Your task to perform on an android device: turn on the 24-hour format for clock Image 0: 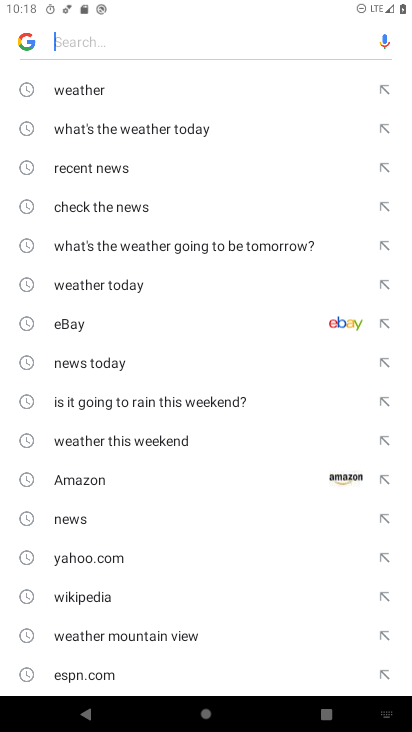
Step 0: press home button
Your task to perform on an android device: turn on the 24-hour format for clock Image 1: 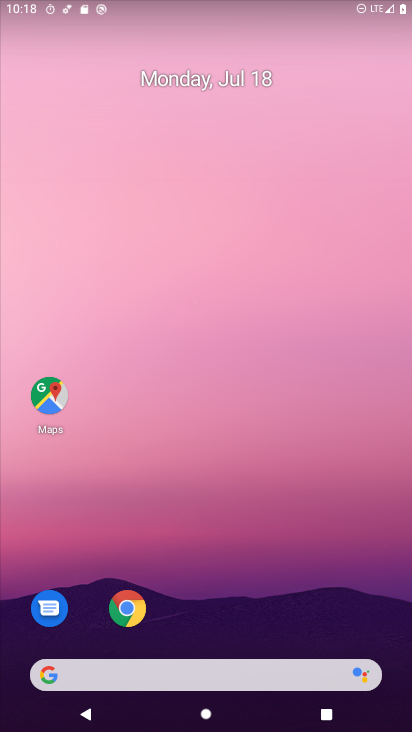
Step 1: drag from (206, 368) to (211, 227)
Your task to perform on an android device: turn on the 24-hour format for clock Image 2: 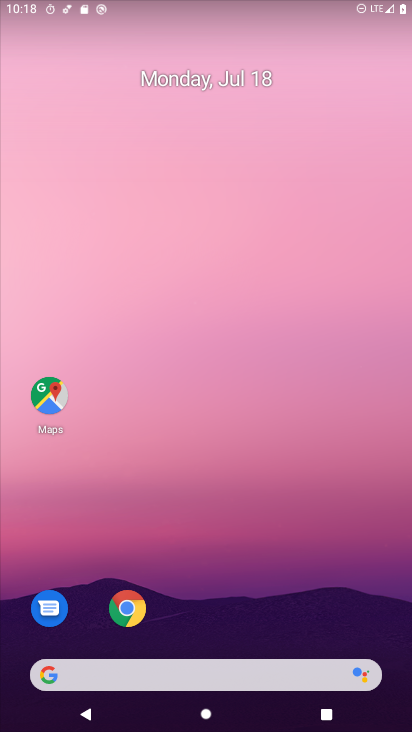
Step 2: drag from (192, 571) to (199, 205)
Your task to perform on an android device: turn on the 24-hour format for clock Image 3: 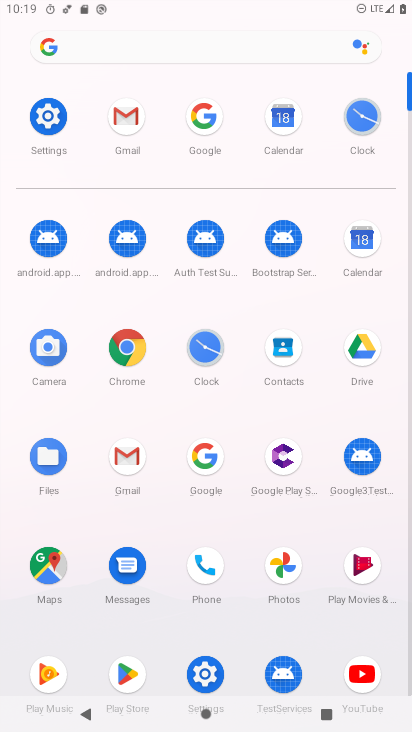
Step 3: click (206, 340)
Your task to perform on an android device: turn on the 24-hour format for clock Image 4: 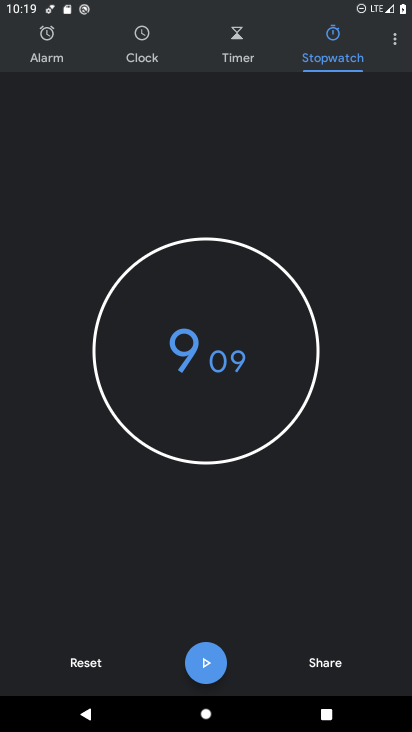
Step 4: click (395, 37)
Your task to perform on an android device: turn on the 24-hour format for clock Image 5: 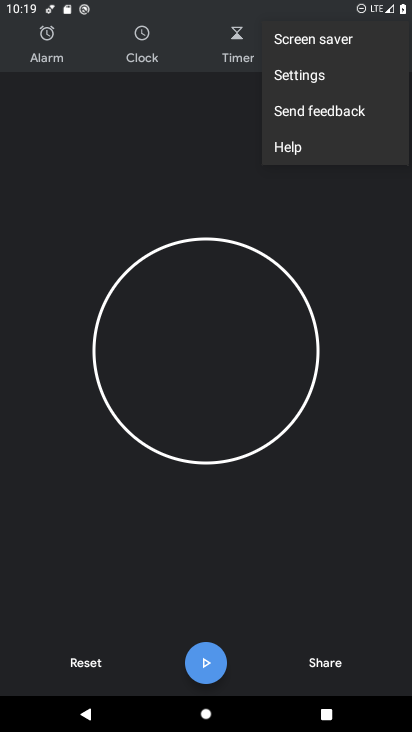
Step 5: click (327, 68)
Your task to perform on an android device: turn on the 24-hour format for clock Image 6: 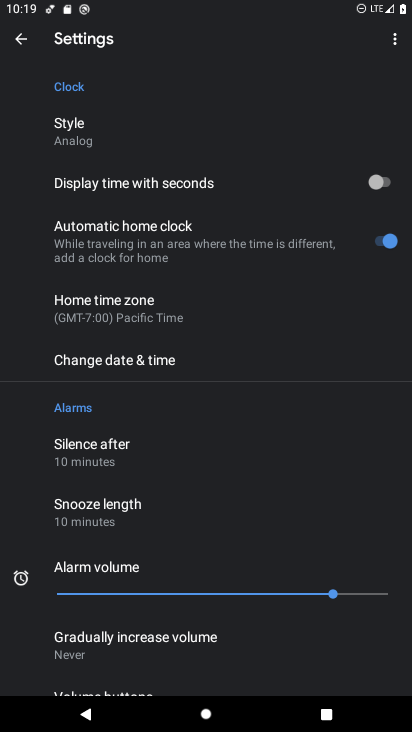
Step 6: click (159, 362)
Your task to perform on an android device: turn on the 24-hour format for clock Image 7: 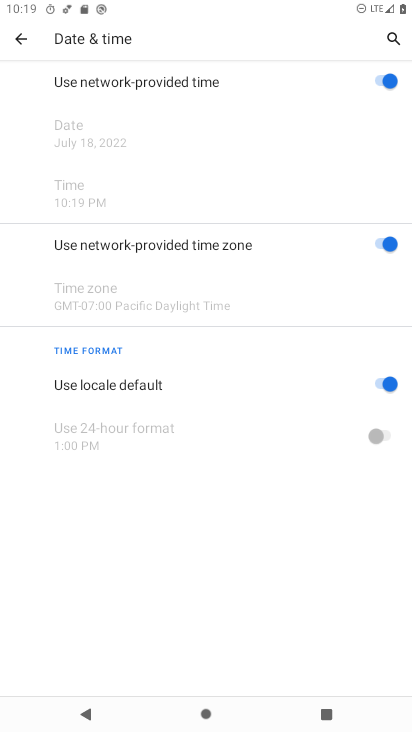
Step 7: click (374, 392)
Your task to perform on an android device: turn on the 24-hour format for clock Image 8: 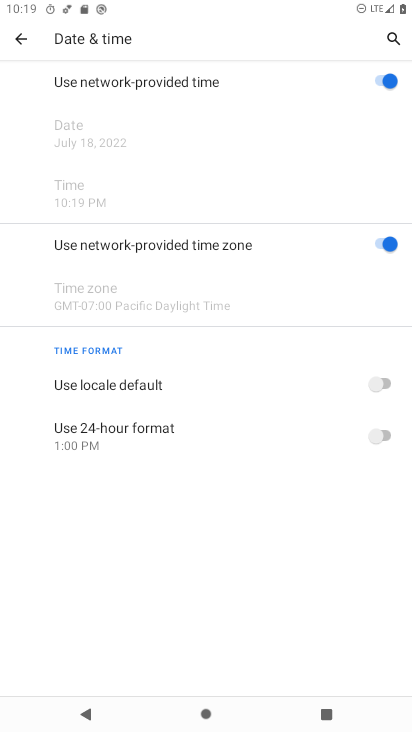
Step 8: click (397, 439)
Your task to perform on an android device: turn on the 24-hour format for clock Image 9: 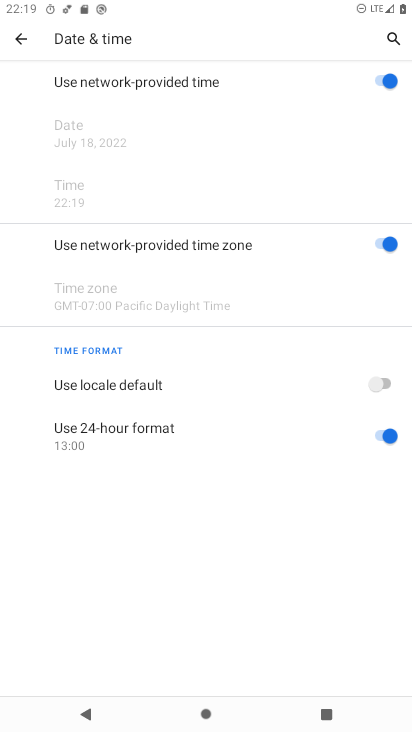
Step 9: task complete